Your task to perform on an android device: Do I have any events tomorrow? Image 0: 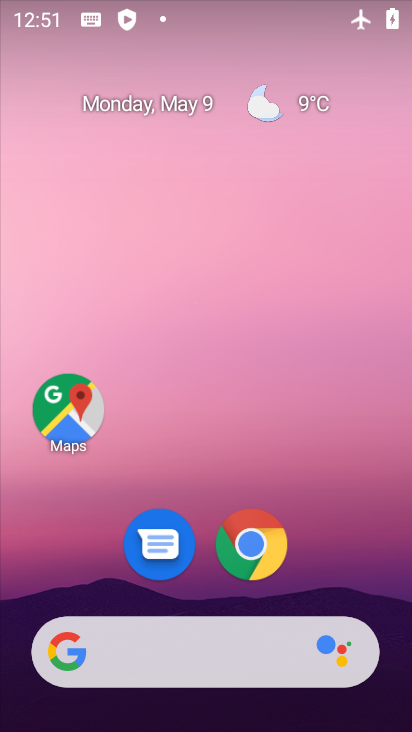
Step 0: drag from (335, 518) to (287, 25)
Your task to perform on an android device: Do I have any events tomorrow? Image 1: 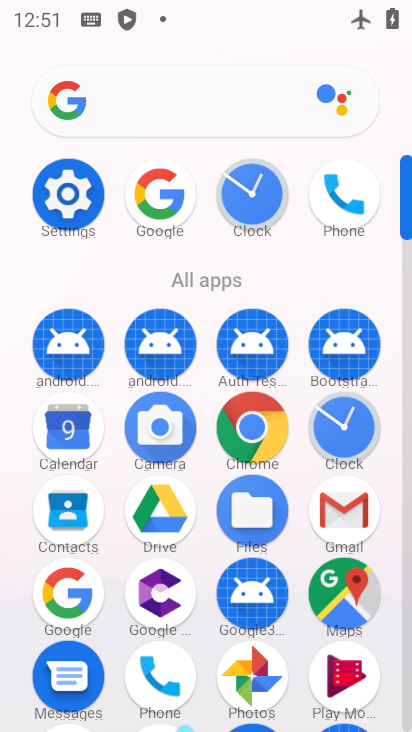
Step 1: click (82, 420)
Your task to perform on an android device: Do I have any events tomorrow? Image 2: 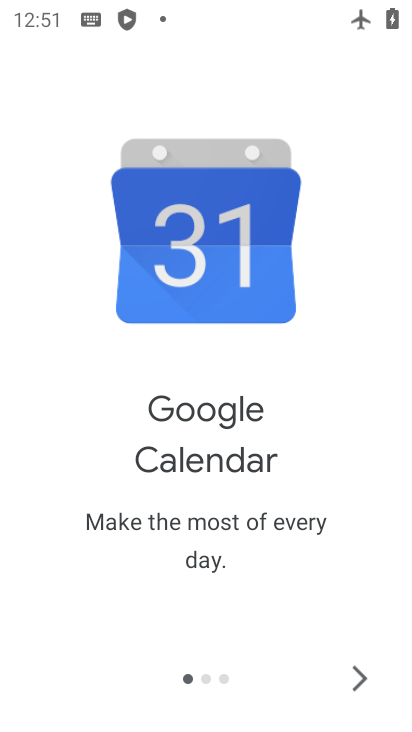
Step 2: click (356, 676)
Your task to perform on an android device: Do I have any events tomorrow? Image 3: 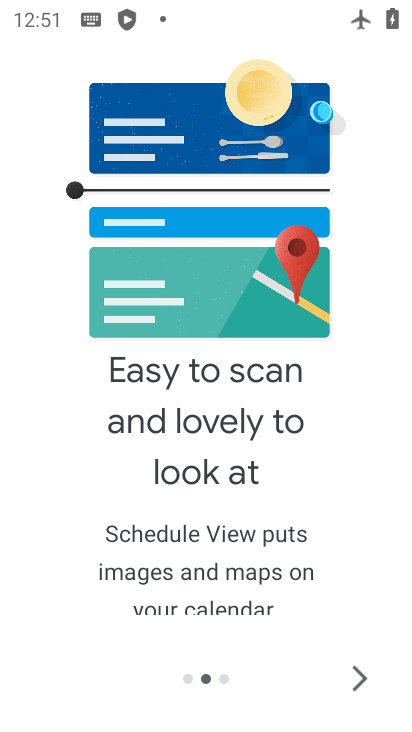
Step 3: click (358, 677)
Your task to perform on an android device: Do I have any events tomorrow? Image 4: 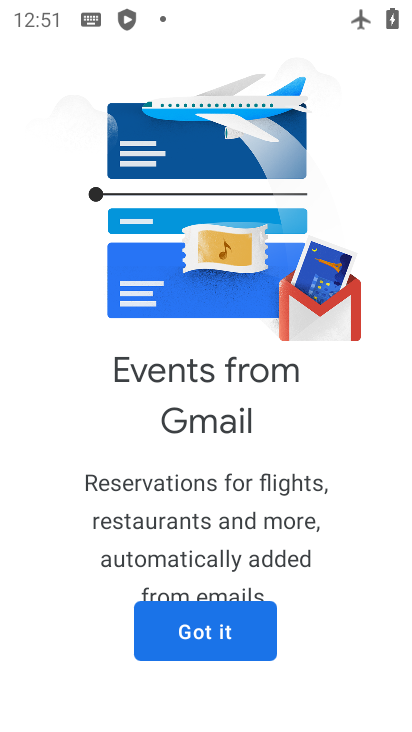
Step 4: click (248, 617)
Your task to perform on an android device: Do I have any events tomorrow? Image 5: 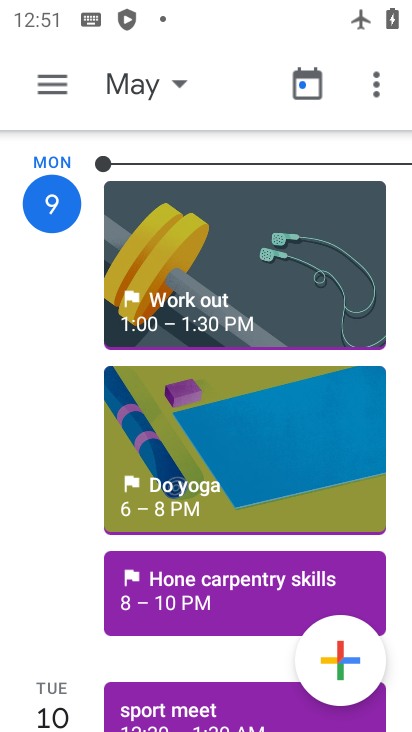
Step 5: task complete